Your task to perform on an android device: turn on improve location accuracy Image 0: 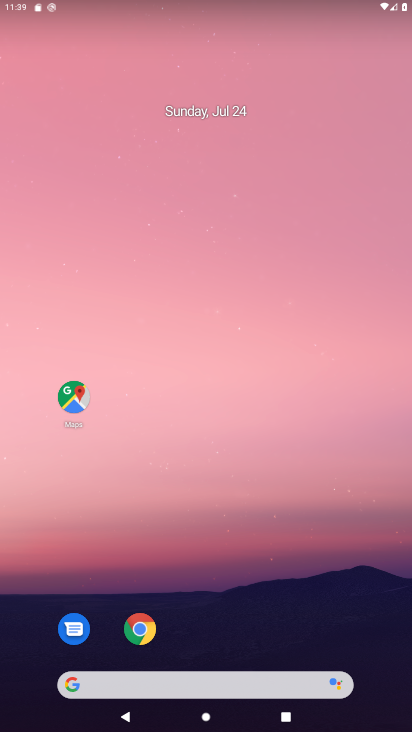
Step 0: drag from (183, 680) to (235, 89)
Your task to perform on an android device: turn on improve location accuracy Image 1: 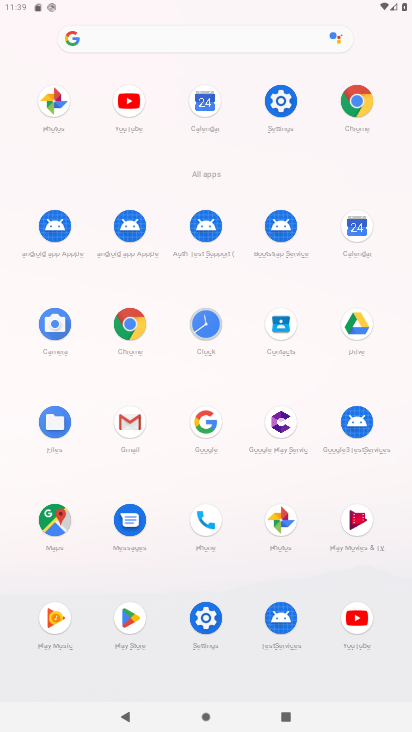
Step 1: click (210, 622)
Your task to perform on an android device: turn on improve location accuracy Image 2: 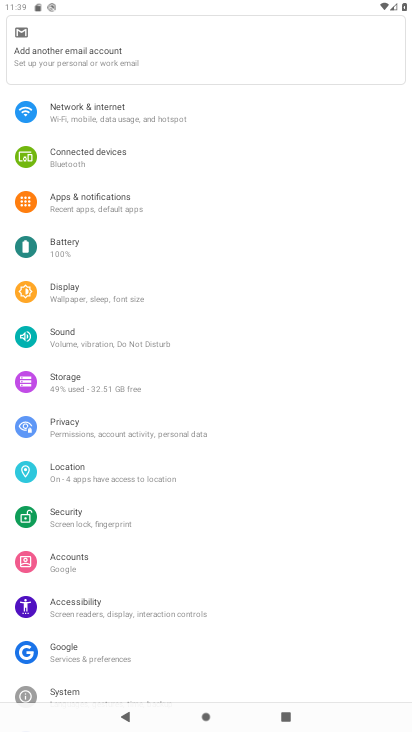
Step 2: click (89, 475)
Your task to perform on an android device: turn on improve location accuracy Image 3: 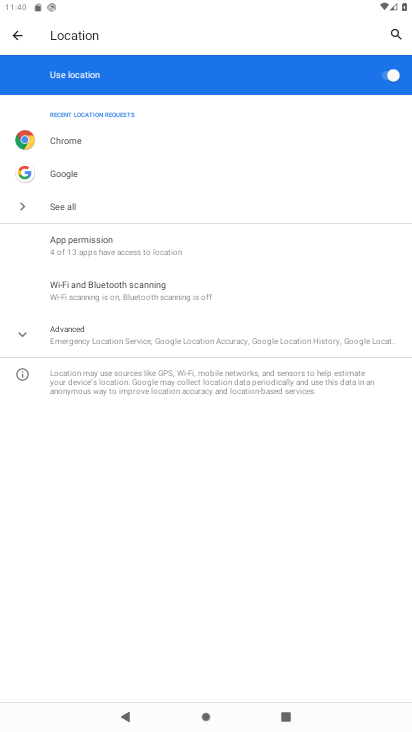
Step 3: click (106, 335)
Your task to perform on an android device: turn on improve location accuracy Image 4: 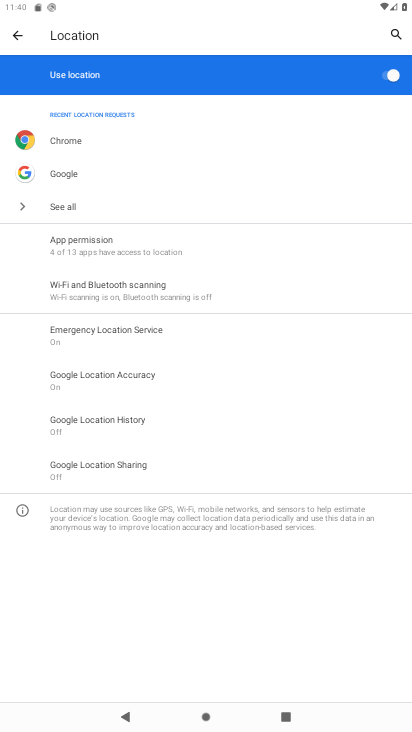
Step 4: click (124, 378)
Your task to perform on an android device: turn on improve location accuracy Image 5: 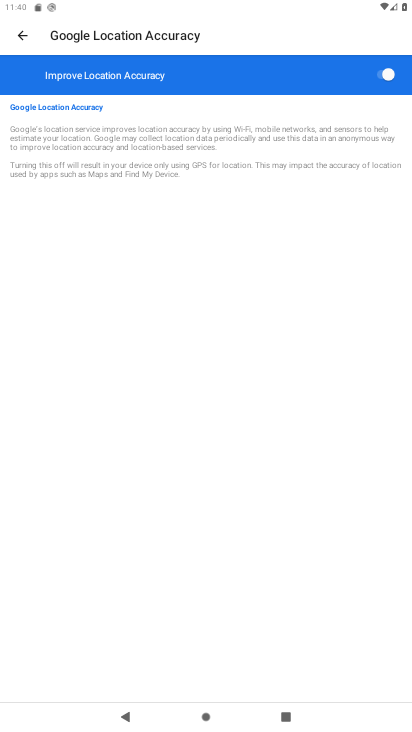
Step 5: task complete